Your task to perform on an android device: Search for Mexican restaurants on Maps Image 0: 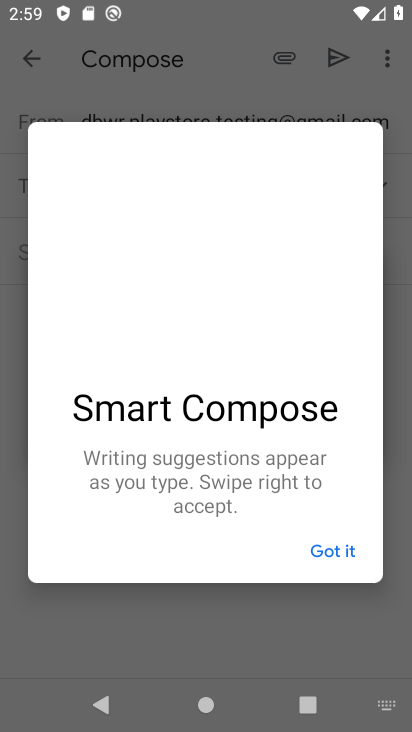
Step 0: press home button
Your task to perform on an android device: Search for Mexican restaurants on Maps Image 1: 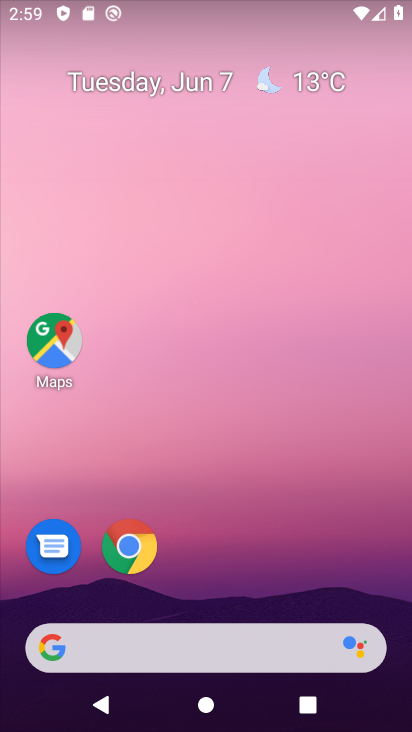
Step 1: click (56, 339)
Your task to perform on an android device: Search for Mexican restaurants on Maps Image 2: 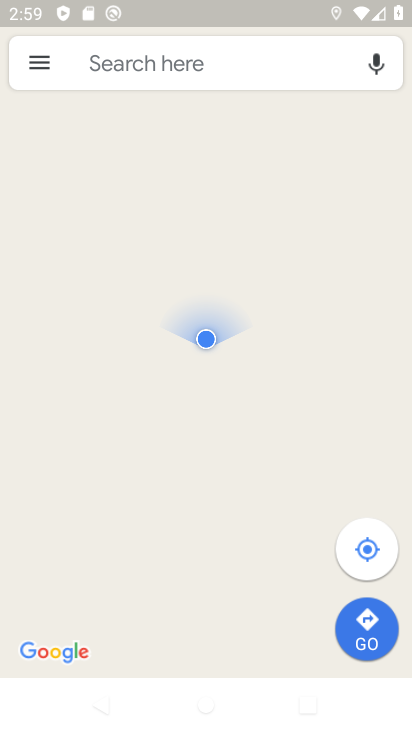
Step 2: click (164, 63)
Your task to perform on an android device: Search for Mexican restaurants on Maps Image 3: 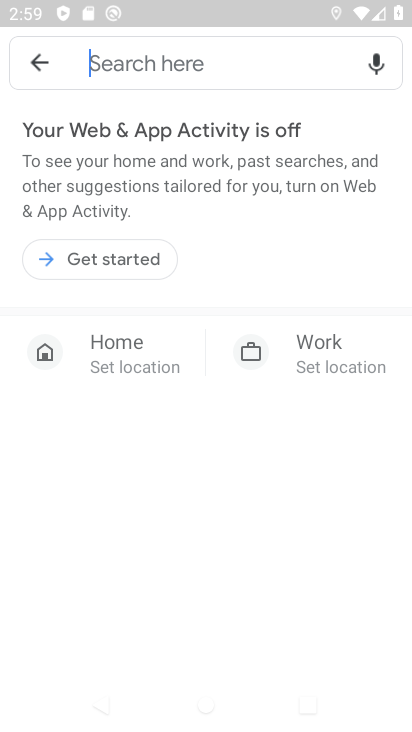
Step 3: click (186, 59)
Your task to perform on an android device: Search for Mexican restaurants on Maps Image 4: 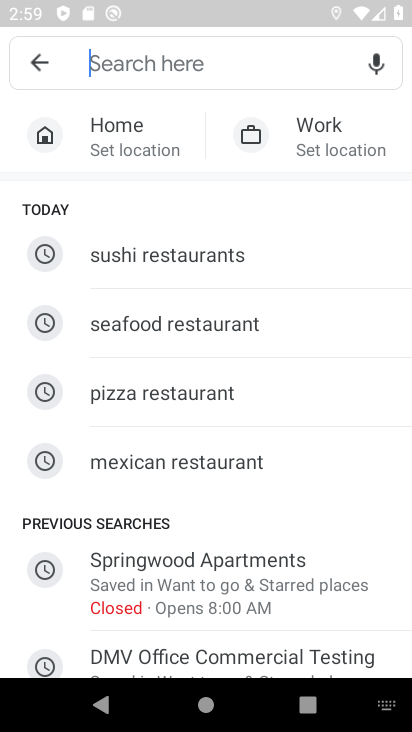
Step 4: click (207, 463)
Your task to perform on an android device: Search for Mexican restaurants on Maps Image 5: 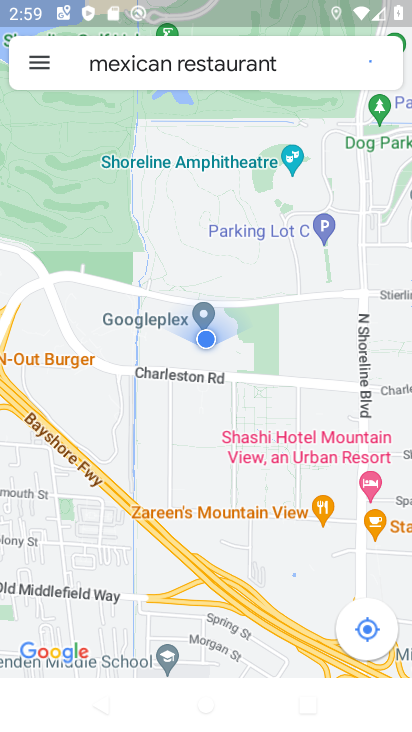
Step 5: task complete